Your task to perform on an android device: add a contact in the contacts app Image 0: 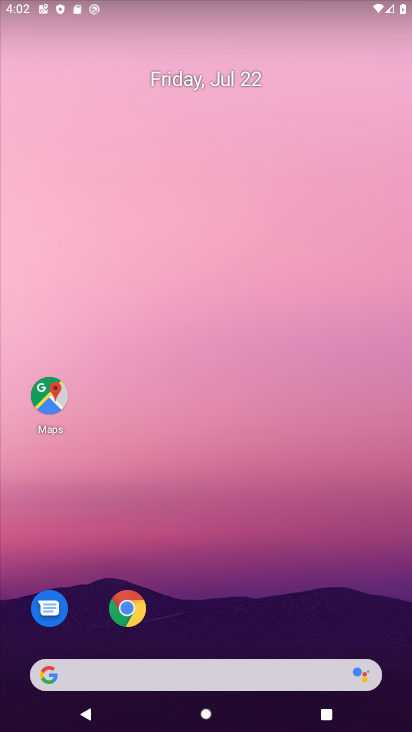
Step 0: drag from (245, 729) to (237, 46)
Your task to perform on an android device: add a contact in the contacts app Image 1: 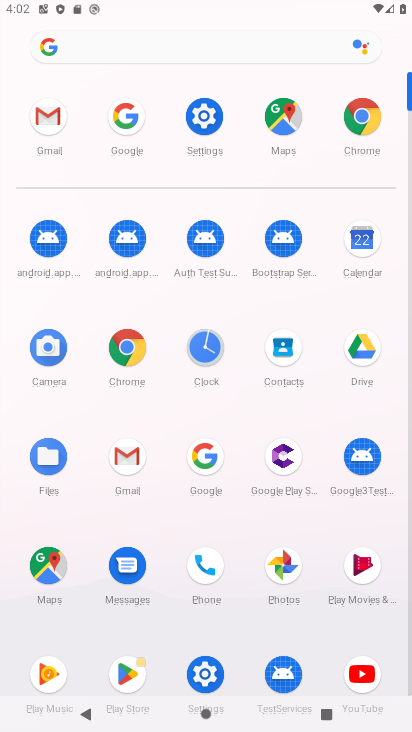
Step 1: click (287, 340)
Your task to perform on an android device: add a contact in the contacts app Image 2: 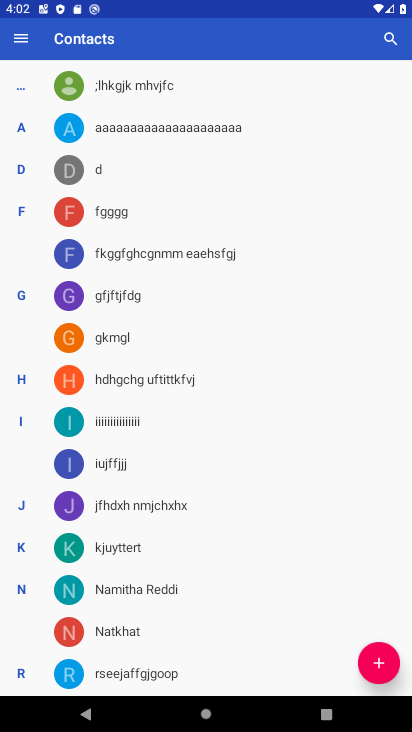
Step 2: click (371, 663)
Your task to perform on an android device: add a contact in the contacts app Image 3: 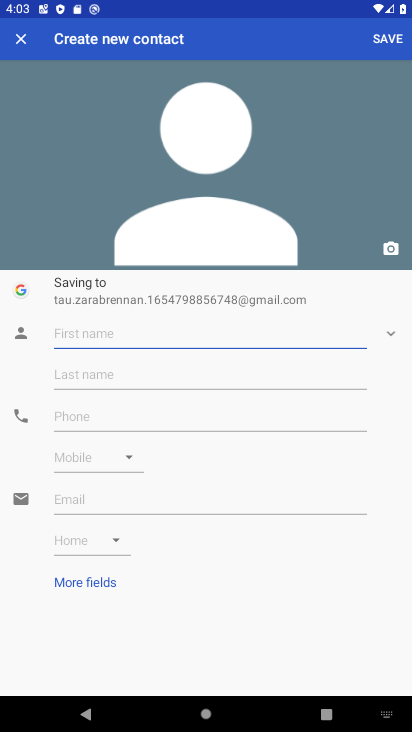
Step 3: type "vikrmaditya"
Your task to perform on an android device: add a contact in the contacts app Image 4: 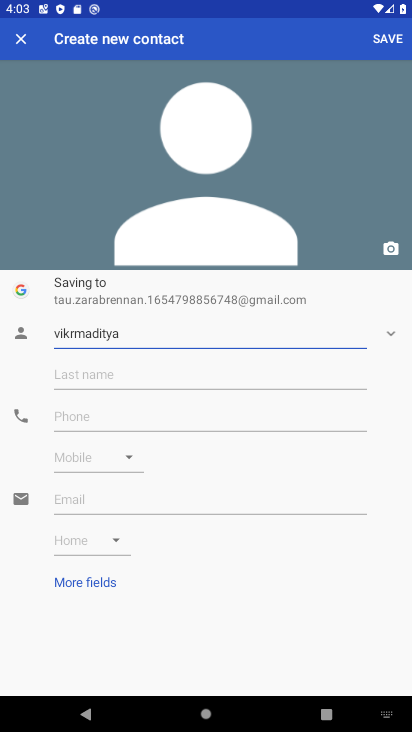
Step 4: click (215, 423)
Your task to perform on an android device: add a contact in the contacts app Image 5: 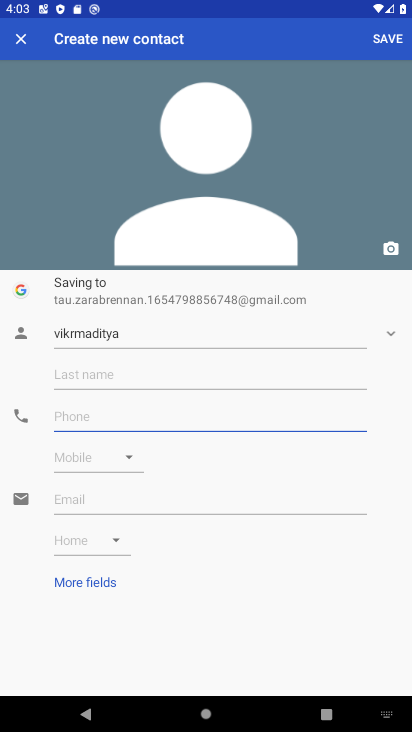
Step 5: type "99999"
Your task to perform on an android device: add a contact in the contacts app Image 6: 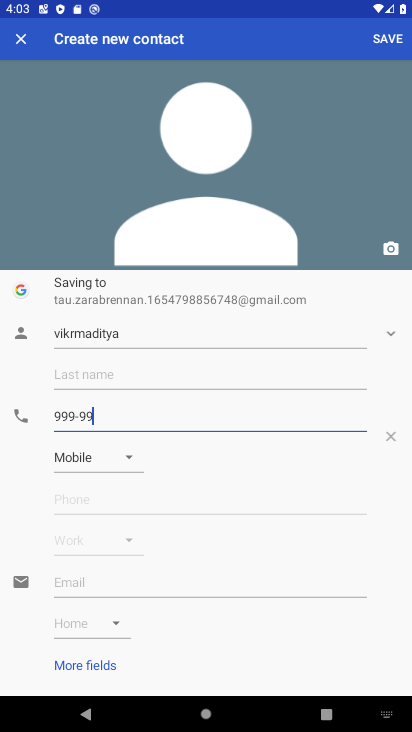
Step 6: type ""
Your task to perform on an android device: add a contact in the contacts app Image 7: 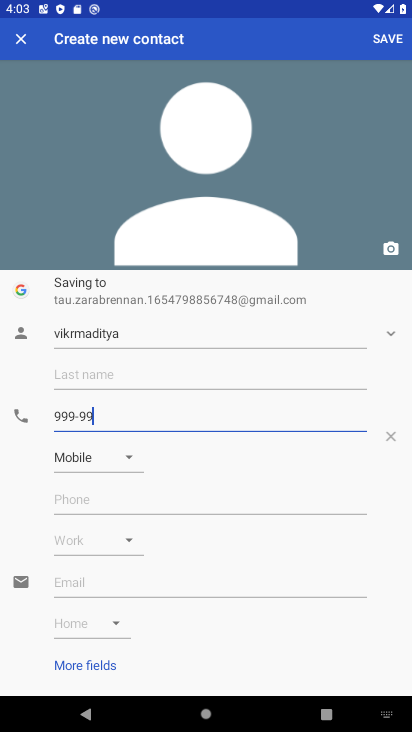
Step 7: click (388, 35)
Your task to perform on an android device: add a contact in the contacts app Image 8: 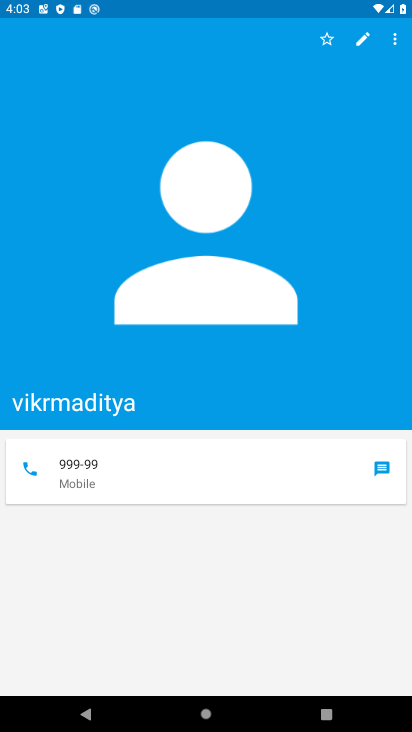
Step 8: task complete